Your task to perform on an android device: check storage Image 0: 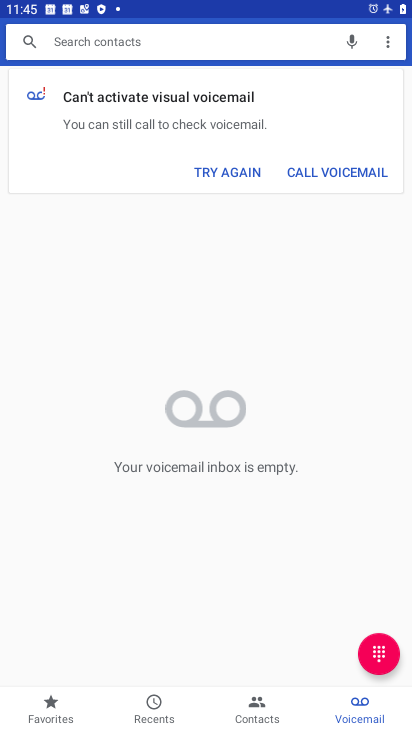
Step 0: press home button
Your task to perform on an android device: check storage Image 1: 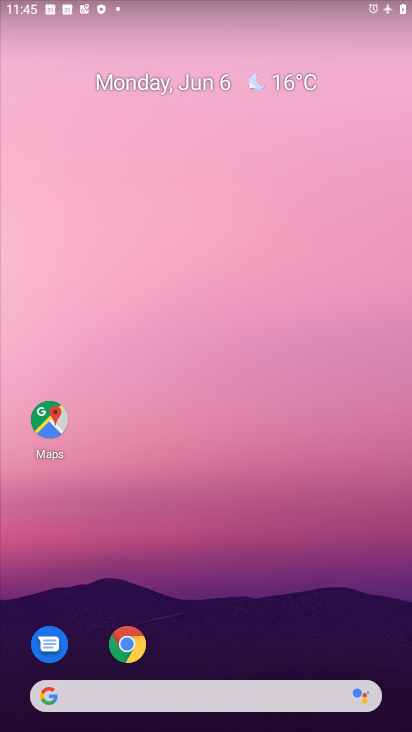
Step 1: drag from (242, 578) to (260, 148)
Your task to perform on an android device: check storage Image 2: 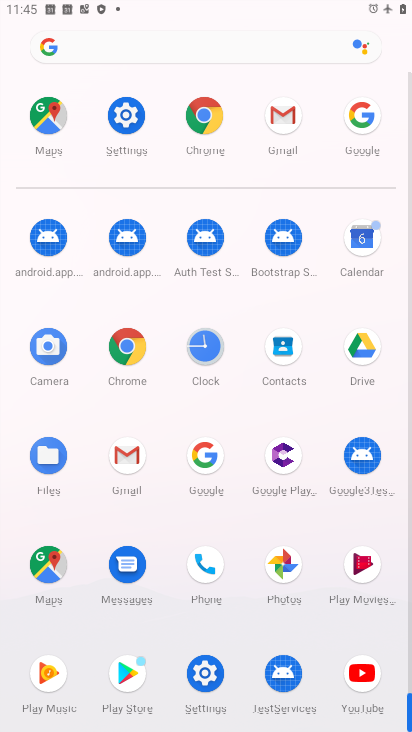
Step 2: click (199, 676)
Your task to perform on an android device: check storage Image 3: 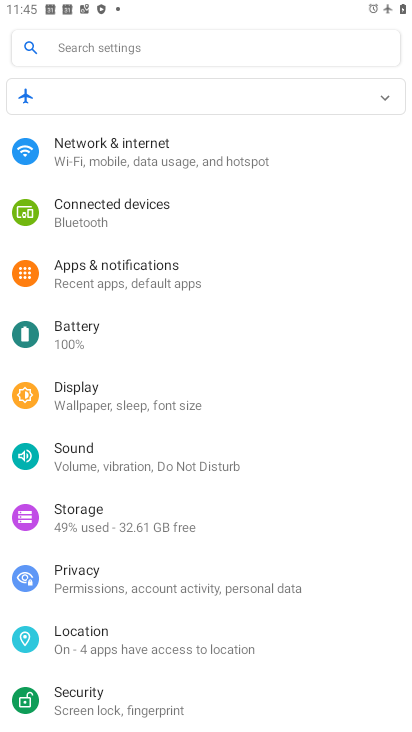
Step 3: click (99, 521)
Your task to perform on an android device: check storage Image 4: 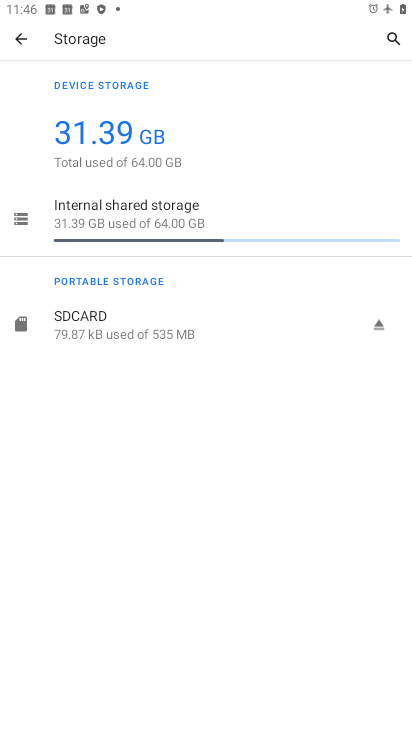
Step 4: click (211, 239)
Your task to perform on an android device: check storage Image 5: 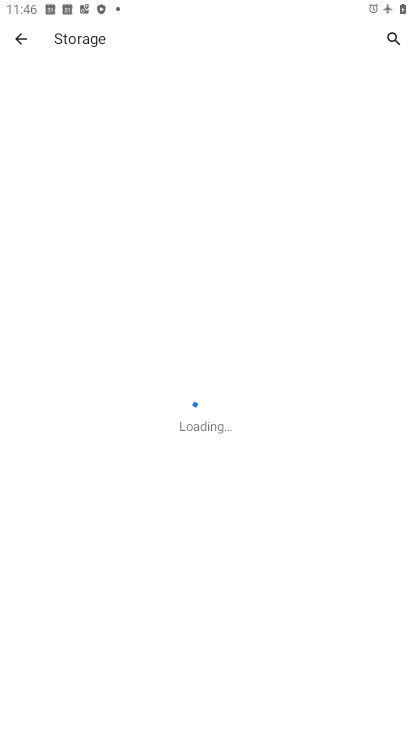
Step 5: task complete